Your task to perform on an android device: Open Google Chrome Image 0: 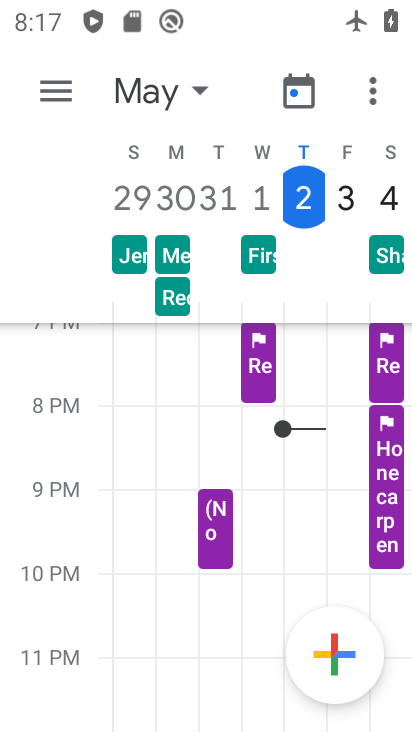
Step 0: press home button
Your task to perform on an android device: Open Google Chrome Image 1: 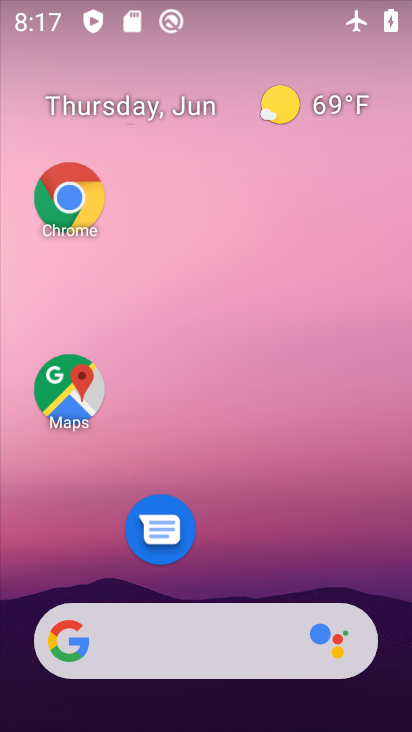
Step 1: click (88, 204)
Your task to perform on an android device: Open Google Chrome Image 2: 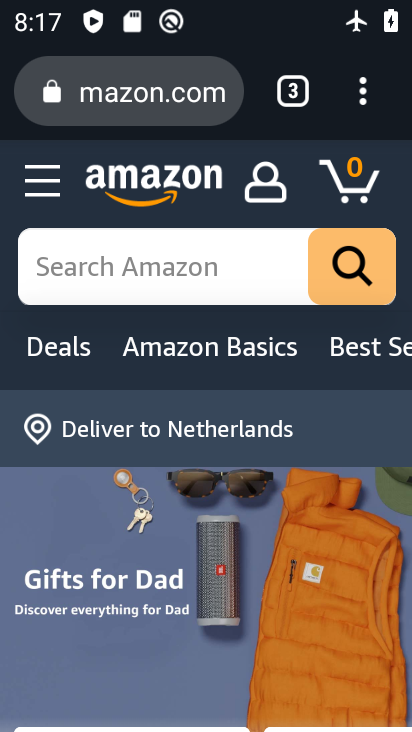
Step 2: task complete